Your task to perform on an android device: Search for seafood restaurants on Google Maps Image 0: 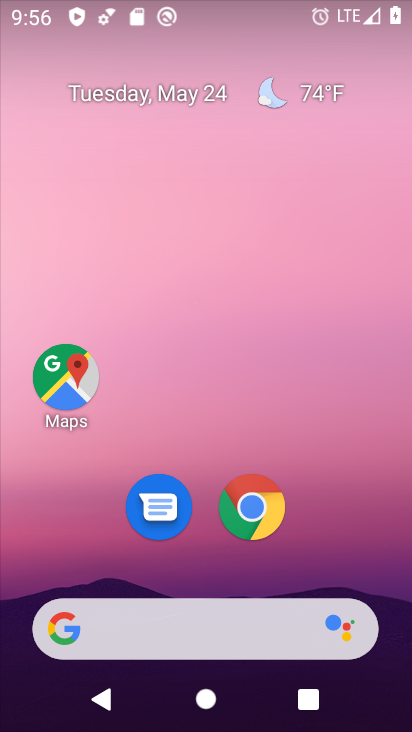
Step 0: drag from (221, 723) to (223, 148)
Your task to perform on an android device: Search for seafood restaurants on Google Maps Image 1: 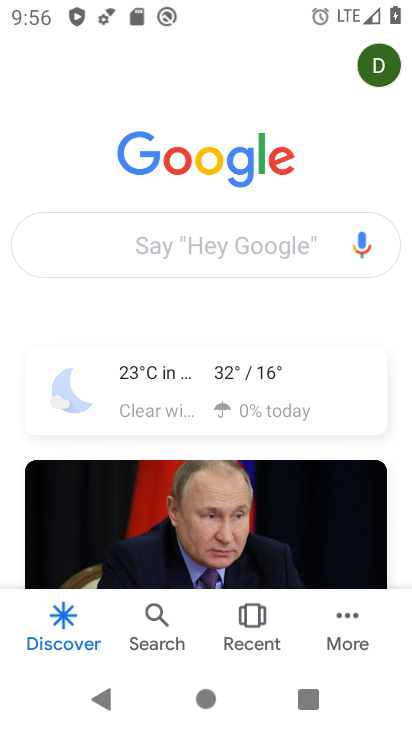
Step 1: press home button
Your task to perform on an android device: Search for seafood restaurants on Google Maps Image 2: 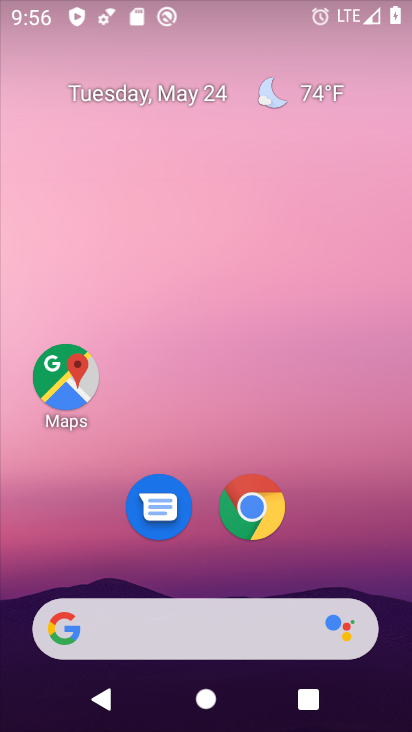
Step 2: drag from (221, 721) to (220, 204)
Your task to perform on an android device: Search for seafood restaurants on Google Maps Image 3: 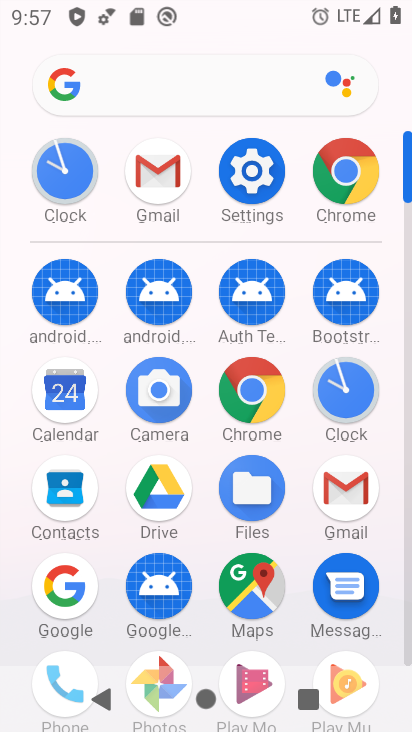
Step 3: click (254, 589)
Your task to perform on an android device: Search for seafood restaurants on Google Maps Image 4: 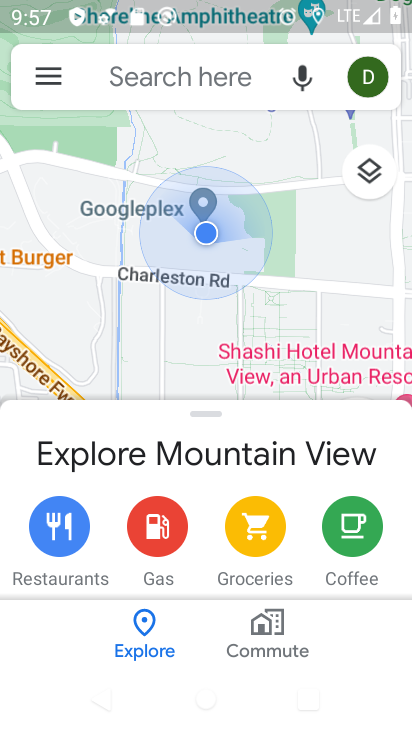
Step 4: click (160, 87)
Your task to perform on an android device: Search for seafood restaurants on Google Maps Image 5: 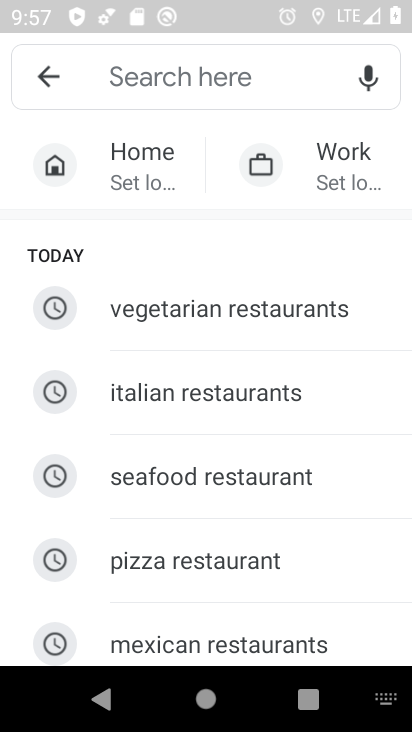
Step 5: type ""
Your task to perform on an android device: Search for seafood restaurants on Google Maps Image 6: 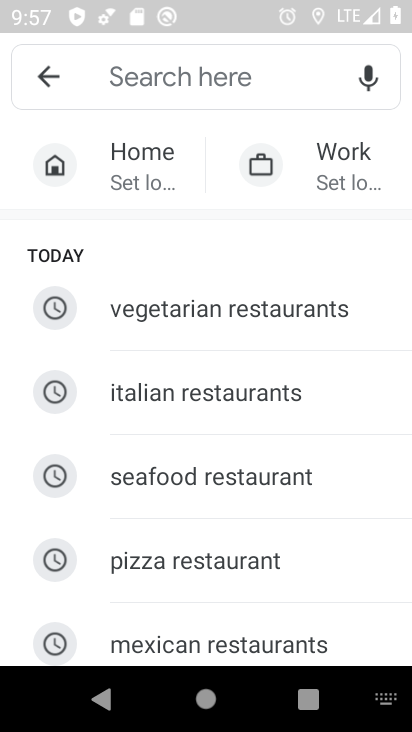
Step 6: type ""
Your task to perform on an android device: Search for seafood restaurants on Google Maps Image 7: 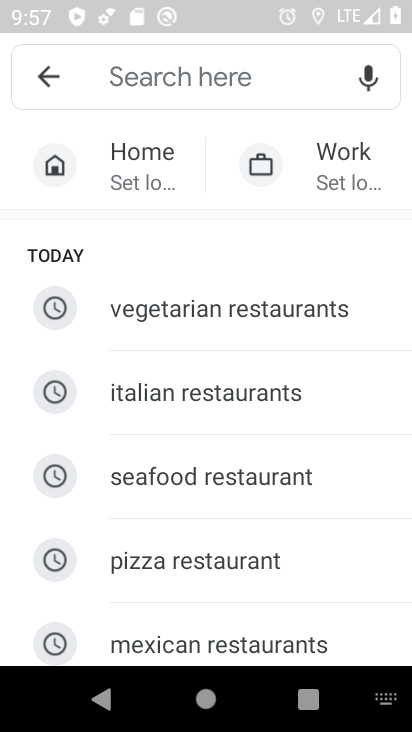
Step 7: type "seafood restaurants"
Your task to perform on an android device: Search for seafood restaurants on Google Maps Image 8: 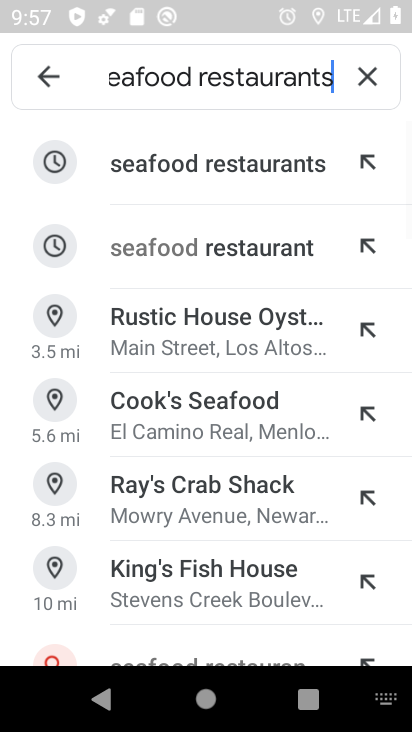
Step 8: click (173, 161)
Your task to perform on an android device: Search for seafood restaurants on Google Maps Image 9: 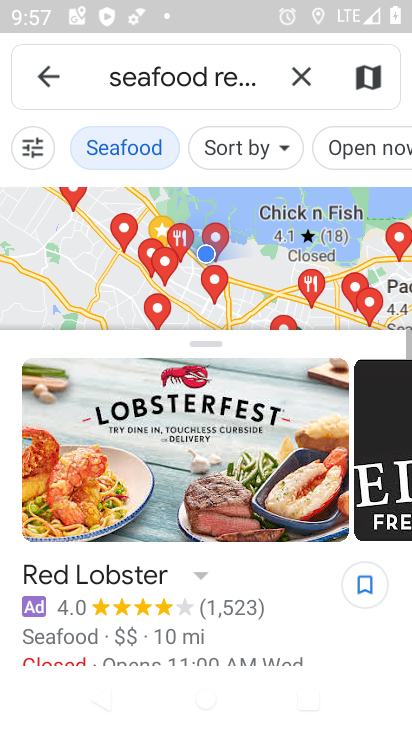
Step 9: task complete